Your task to perform on an android device: star an email in the gmail app Image 0: 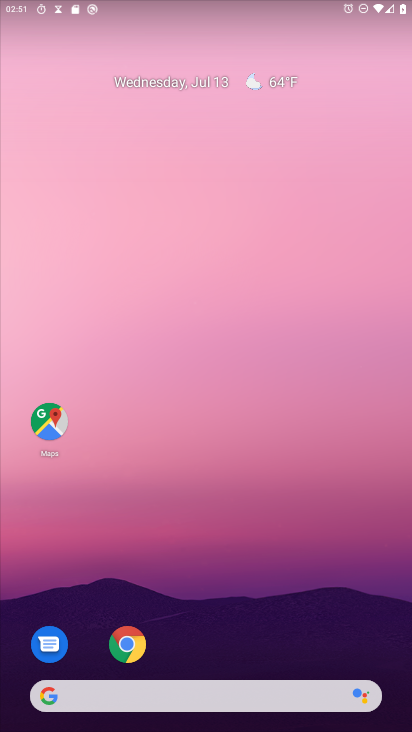
Step 0: press home button
Your task to perform on an android device: star an email in the gmail app Image 1: 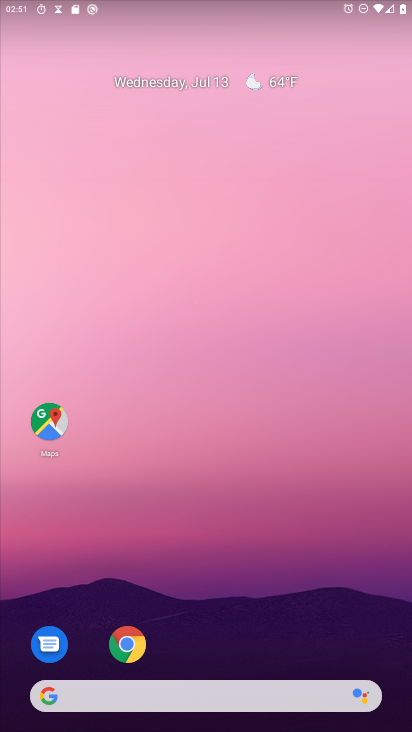
Step 1: drag from (226, 620) to (192, 105)
Your task to perform on an android device: star an email in the gmail app Image 2: 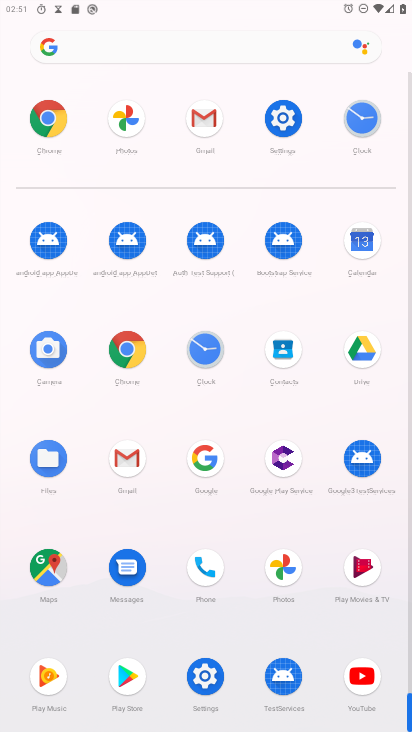
Step 2: click (216, 117)
Your task to perform on an android device: star an email in the gmail app Image 3: 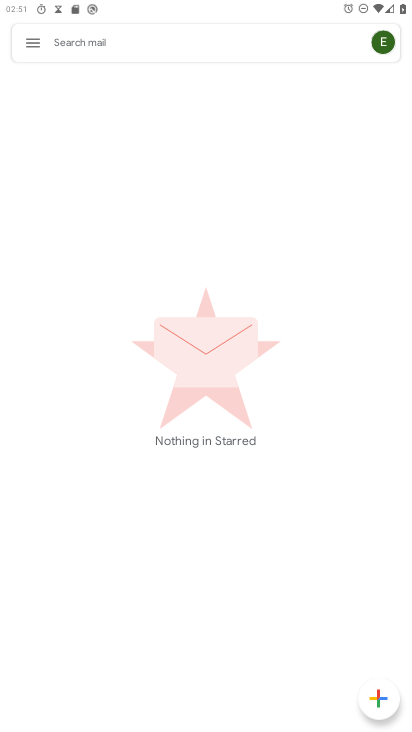
Step 3: click (27, 47)
Your task to perform on an android device: star an email in the gmail app Image 4: 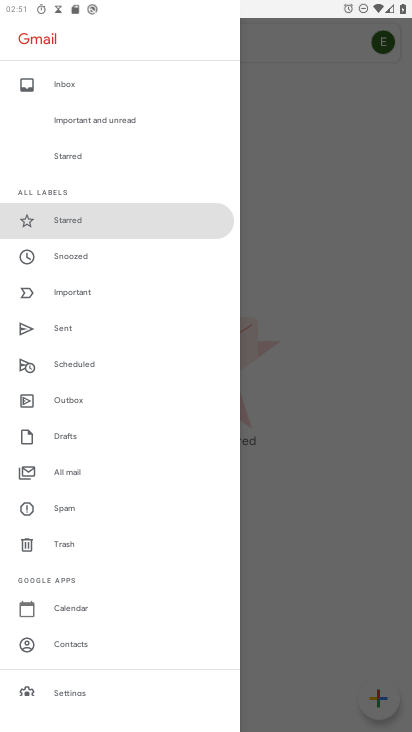
Step 4: click (81, 221)
Your task to perform on an android device: star an email in the gmail app Image 5: 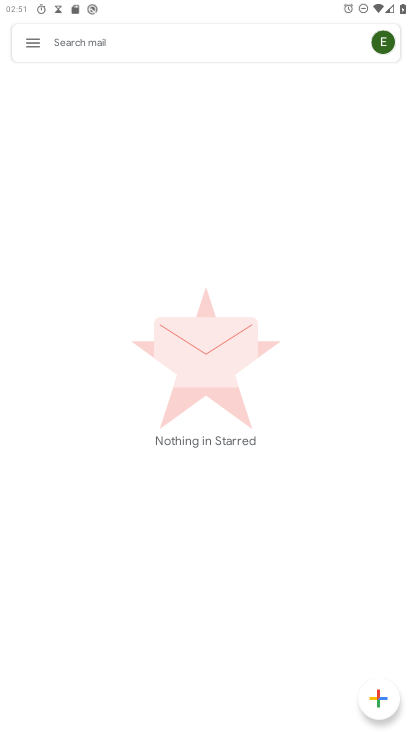
Step 5: click (26, 44)
Your task to perform on an android device: star an email in the gmail app Image 6: 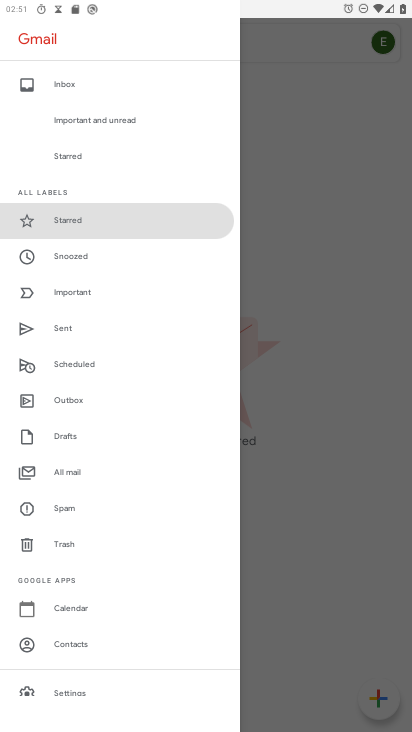
Step 6: click (68, 468)
Your task to perform on an android device: star an email in the gmail app Image 7: 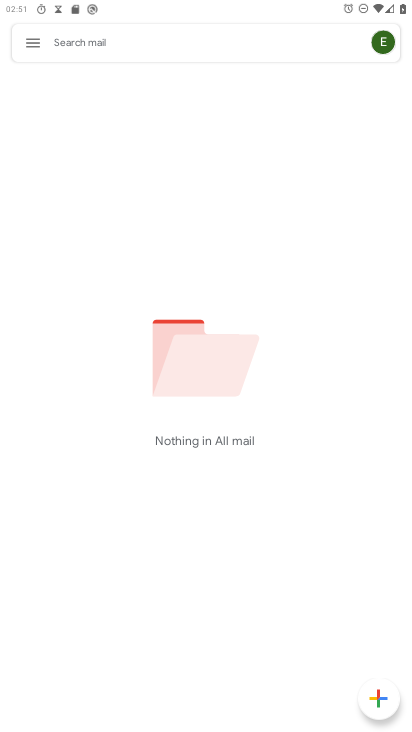
Step 7: task complete